Your task to perform on an android device: turn on translation in the chrome app Image 0: 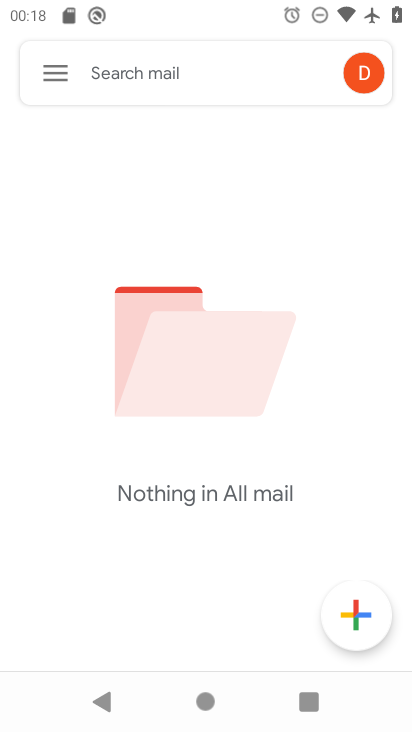
Step 0: press home button
Your task to perform on an android device: turn on translation in the chrome app Image 1: 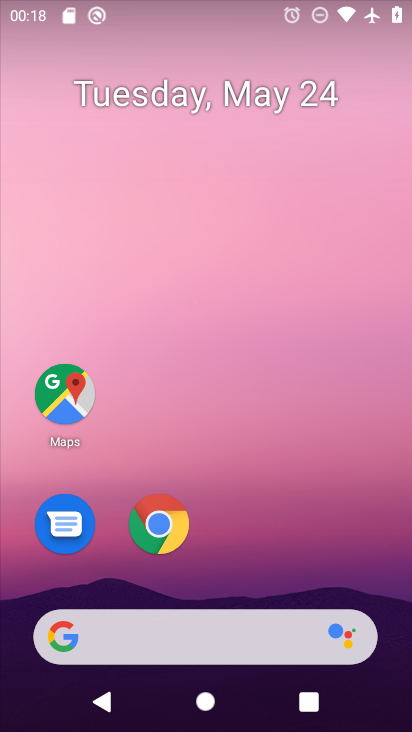
Step 1: click (173, 544)
Your task to perform on an android device: turn on translation in the chrome app Image 2: 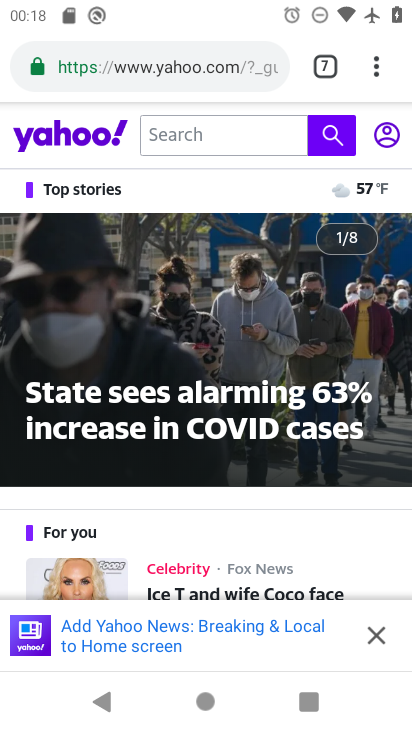
Step 2: drag from (375, 59) to (206, 510)
Your task to perform on an android device: turn on translation in the chrome app Image 3: 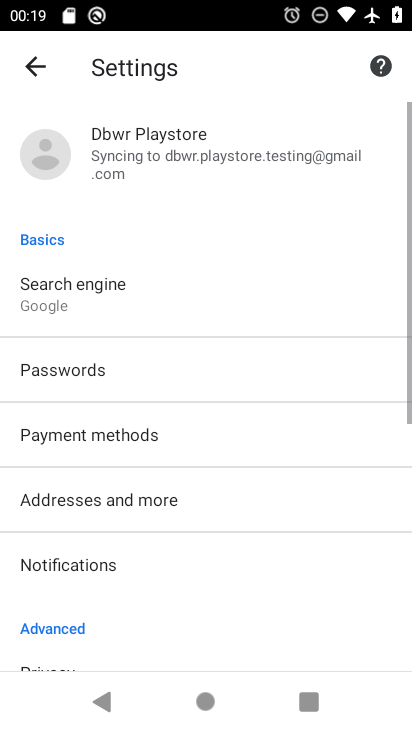
Step 3: drag from (211, 640) to (292, 298)
Your task to perform on an android device: turn on translation in the chrome app Image 4: 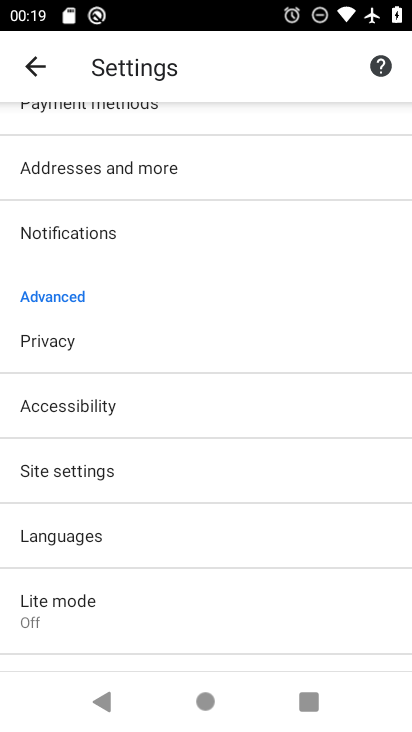
Step 4: drag from (209, 598) to (218, 464)
Your task to perform on an android device: turn on translation in the chrome app Image 5: 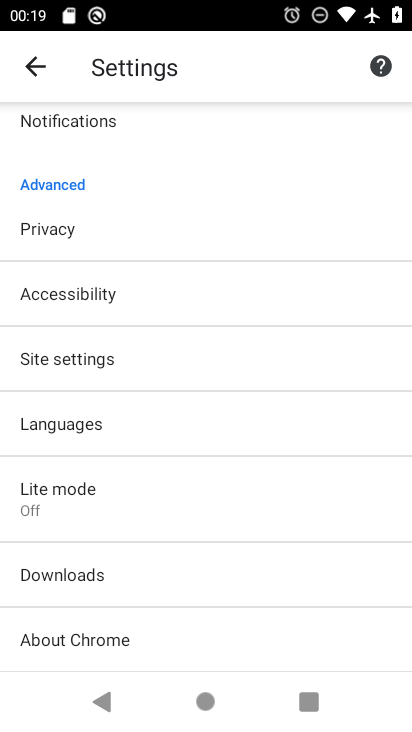
Step 5: click (115, 427)
Your task to perform on an android device: turn on translation in the chrome app Image 6: 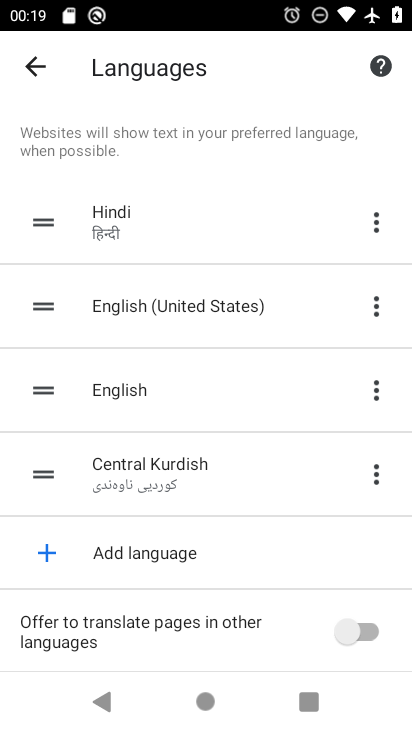
Step 6: click (375, 621)
Your task to perform on an android device: turn on translation in the chrome app Image 7: 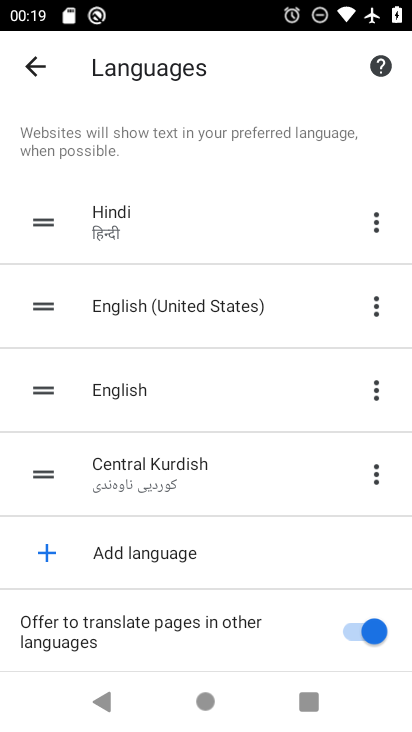
Step 7: task complete